Your task to perform on an android device: delete a single message in the gmail app Image 0: 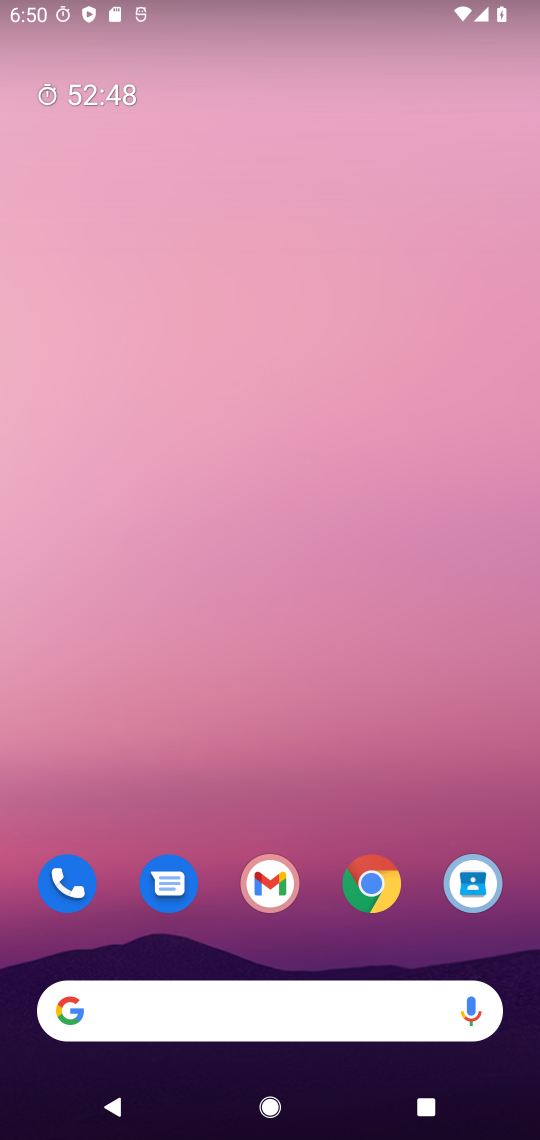
Step 0: click (264, 903)
Your task to perform on an android device: delete a single message in the gmail app Image 1: 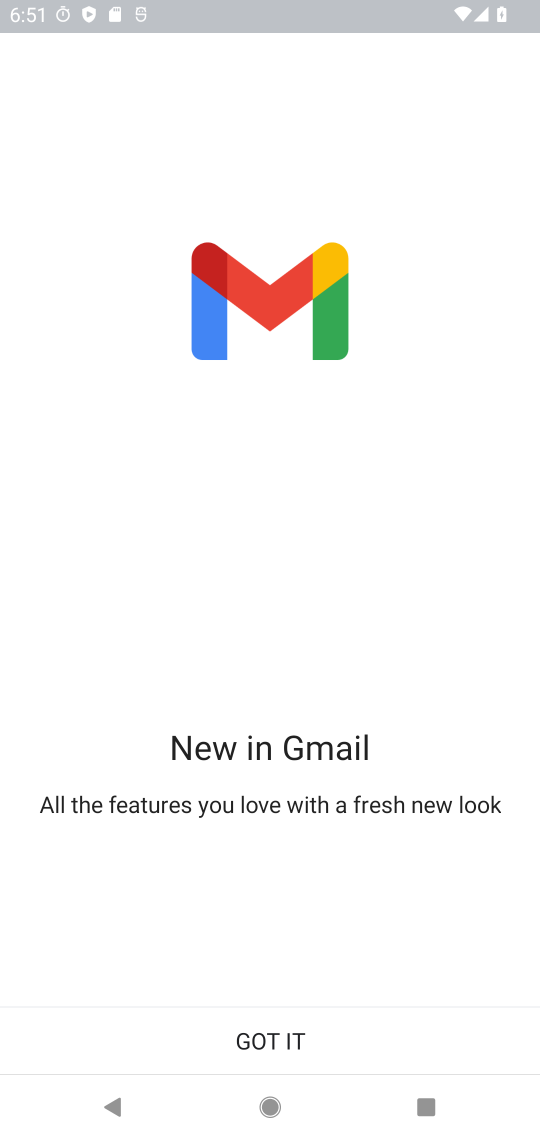
Step 1: click (274, 1027)
Your task to perform on an android device: delete a single message in the gmail app Image 2: 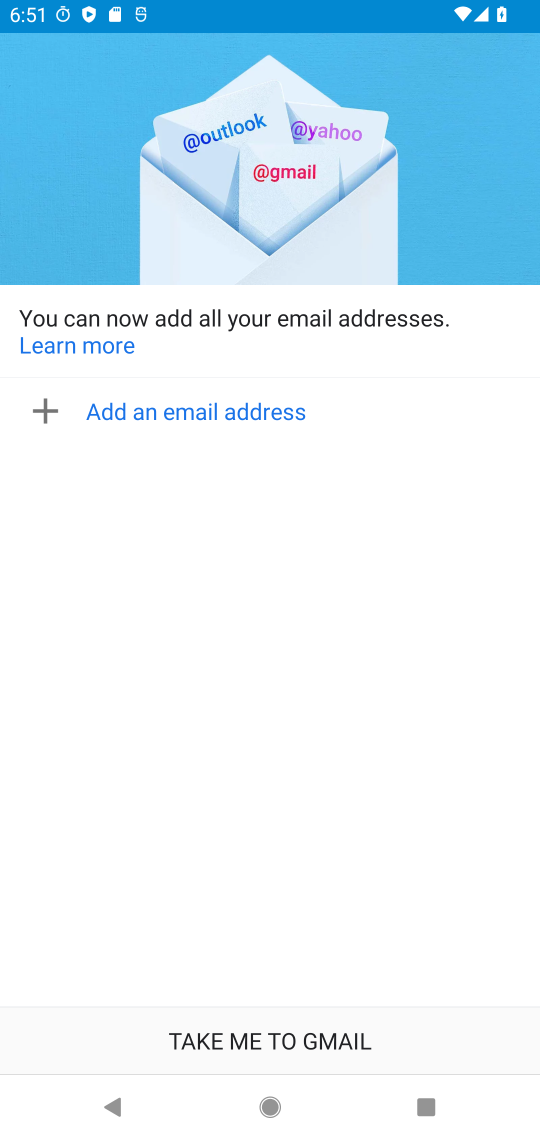
Step 2: click (301, 1036)
Your task to perform on an android device: delete a single message in the gmail app Image 3: 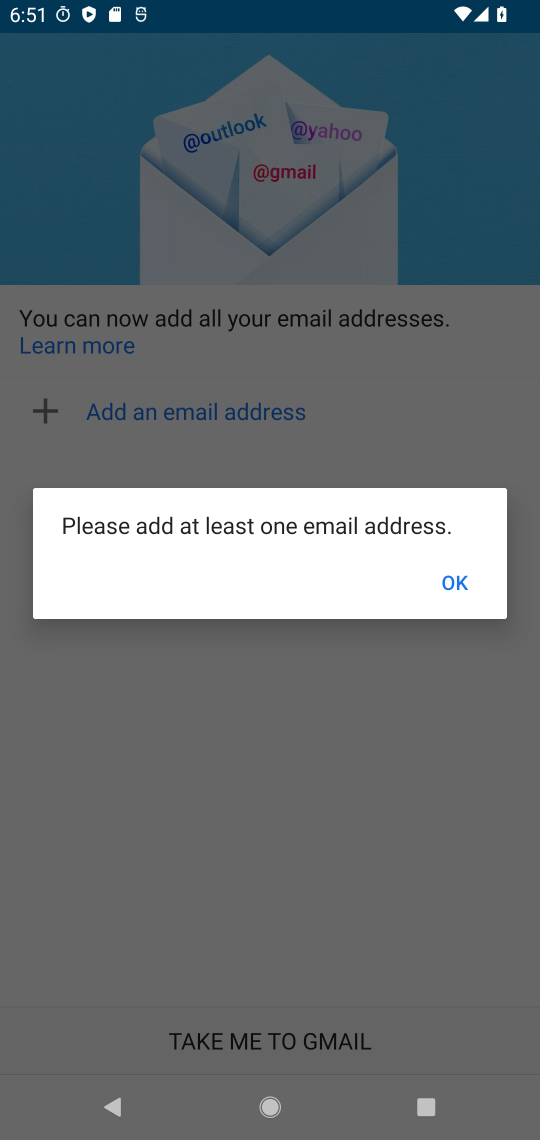
Step 3: click (458, 580)
Your task to perform on an android device: delete a single message in the gmail app Image 4: 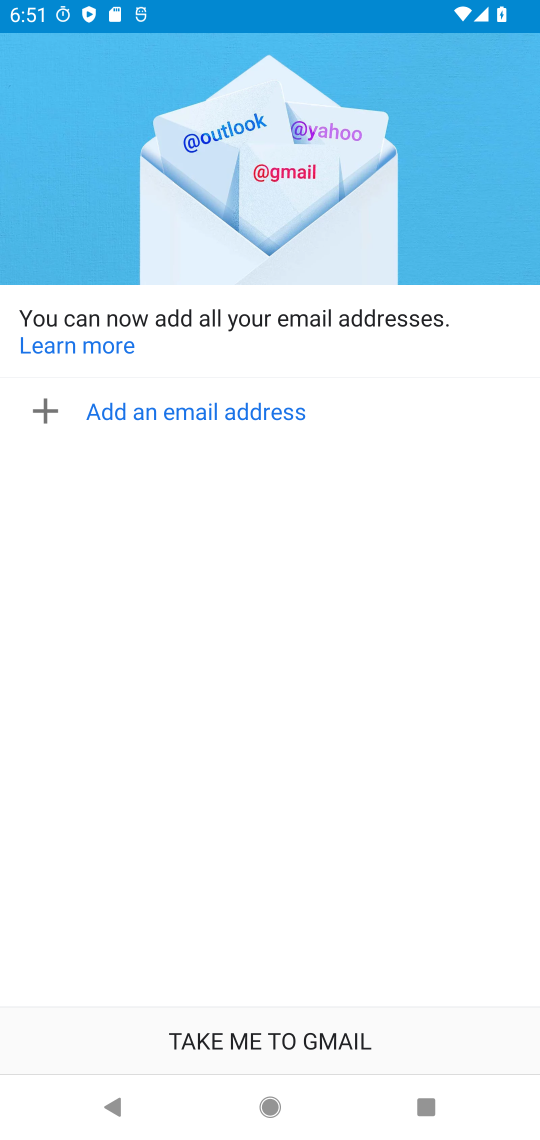
Step 4: task complete